Your task to perform on an android device: Open calendar and show me the fourth week of next month Image 0: 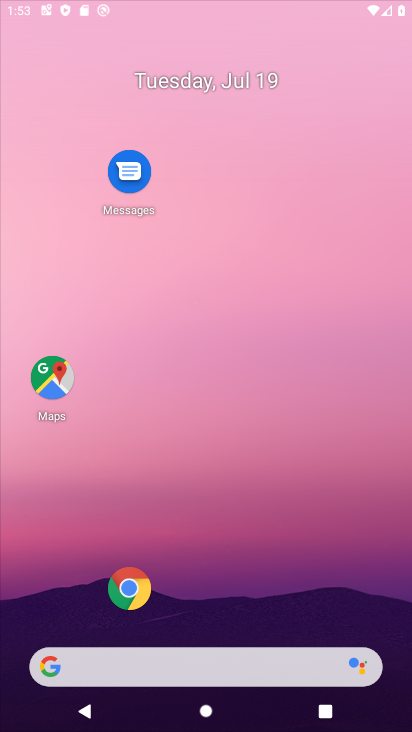
Step 0: click (64, 387)
Your task to perform on an android device: Open calendar and show me the fourth week of next month Image 1: 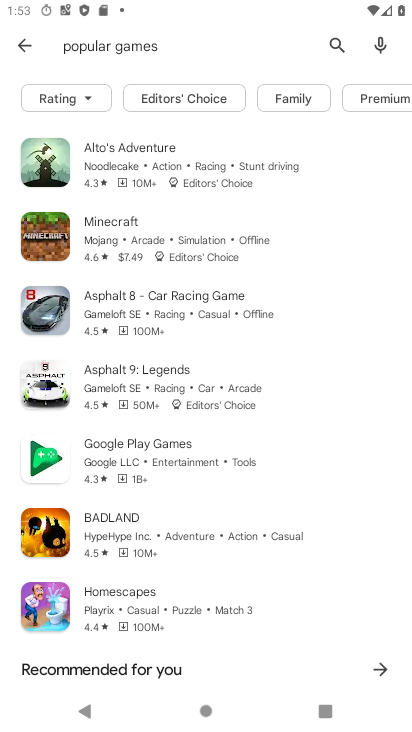
Step 1: click (26, 49)
Your task to perform on an android device: Open calendar and show me the fourth week of next month Image 2: 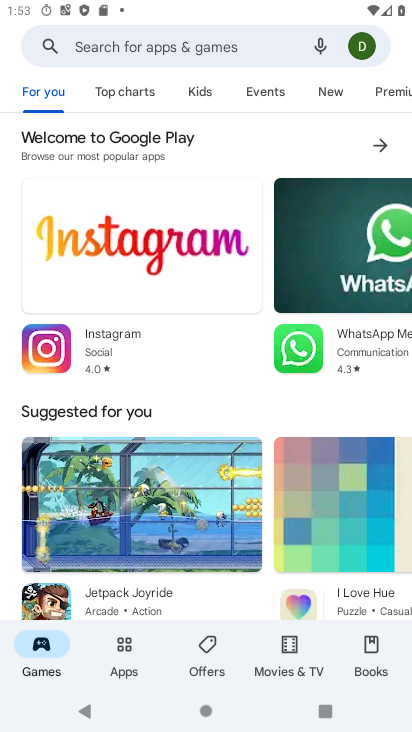
Step 2: press home button
Your task to perform on an android device: Open calendar and show me the fourth week of next month Image 3: 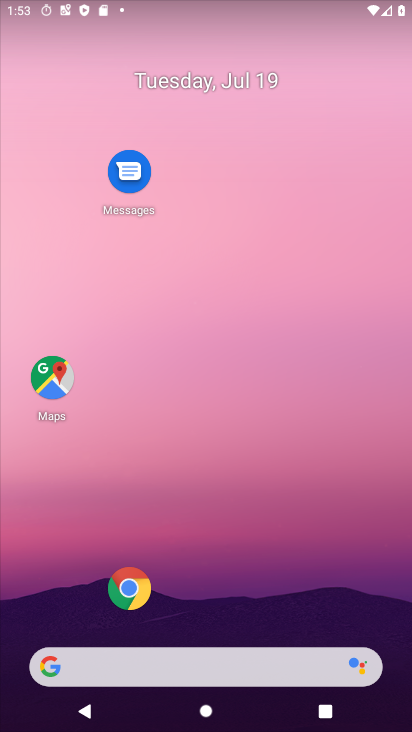
Step 3: drag from (60, 545) to (150, 264)
Your task to perform on an android device: Open calendar and show me the fourth week of next month Image 4: 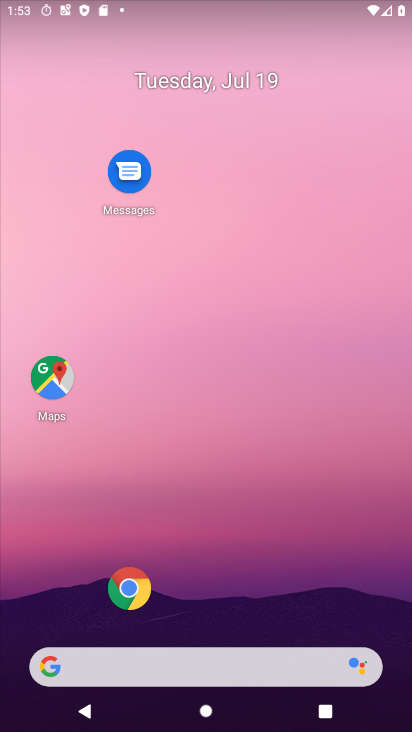
Step 4: drag from (17, 707) to (194, 92)
Your task to perform on an android device: Open calendar and show me the fourth week of next month Image 5: 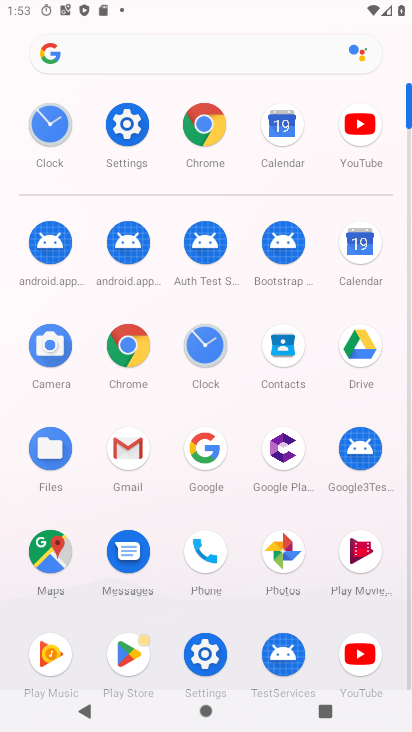
Step 5: click (361, 258)
Your task to perform on an android device: Open calendar and show me the fourth week of next month Image 6: 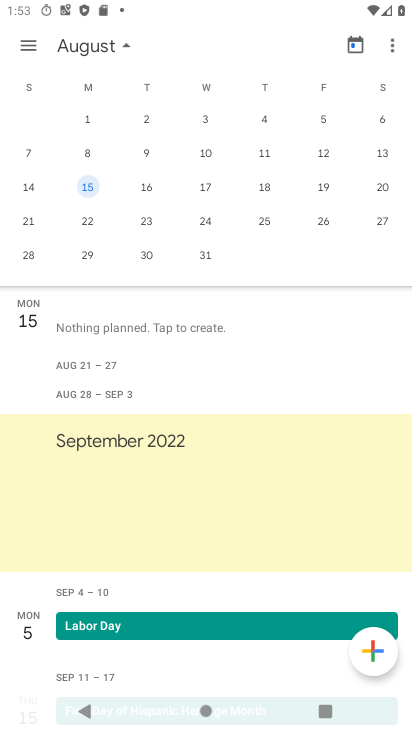
Step 6: click (83, 218)
Your task to perform on an android device: Open calendar and show me the fourth week of next month Image 7: 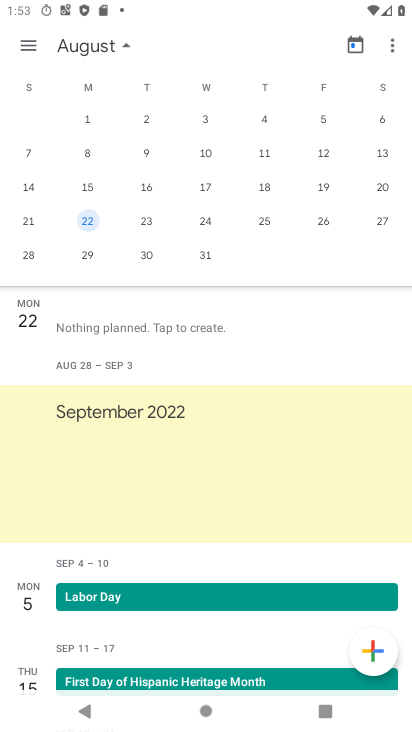
Step 7: task complete